Your task to perform on an android device: Do I have any events this weekend? Image 0: 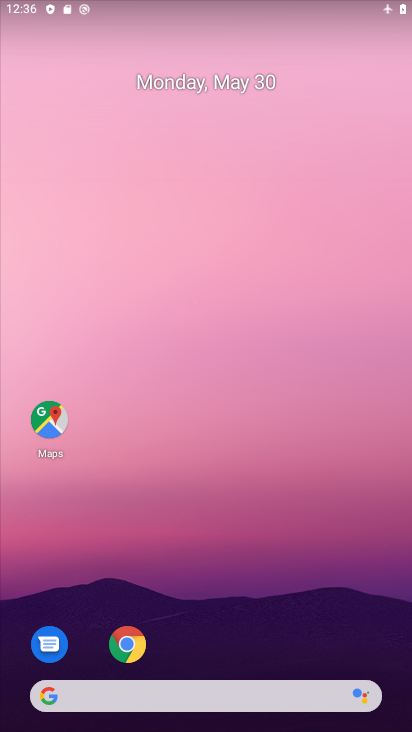
Step 0: drag from (315, 312) to (288, 106)
Your task to perform on an android device: Do I have any events this weekend? Image 1: 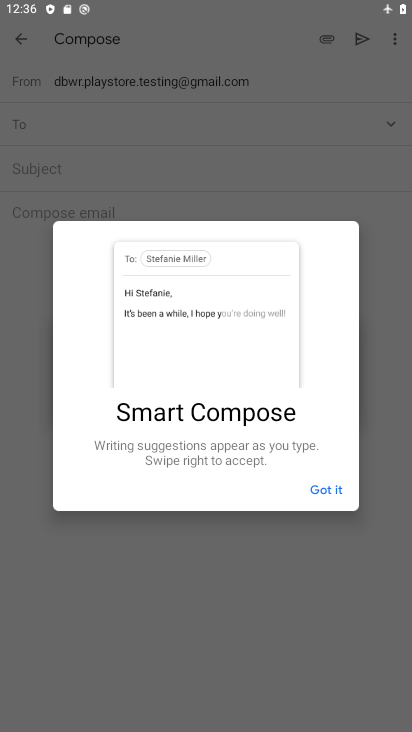
Step 1: press home button
Your task to perform on an android device: Do I have any events this weekend? Image 2: 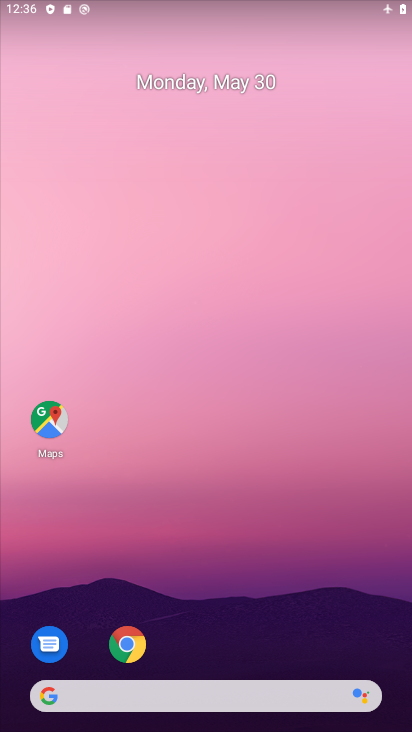
Step 2: drag from (310, 617) to (310, 141)
Your task to perform on an android device: Do I have any events this weekend? Image 3: 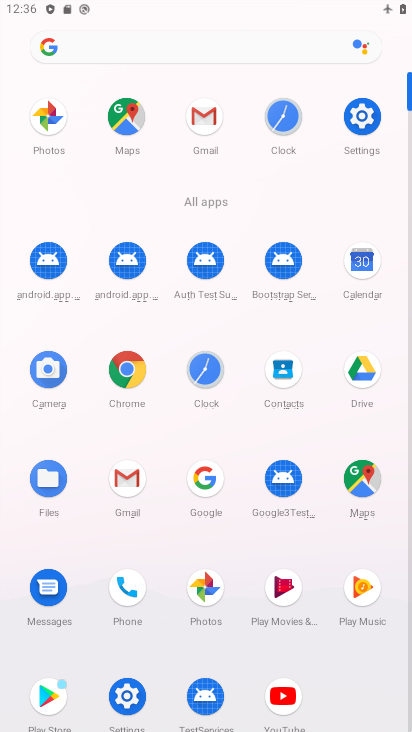
Step 3: click (361, 272)
Your task to perform on an android device: Do I have any events this weekend? Image 4: 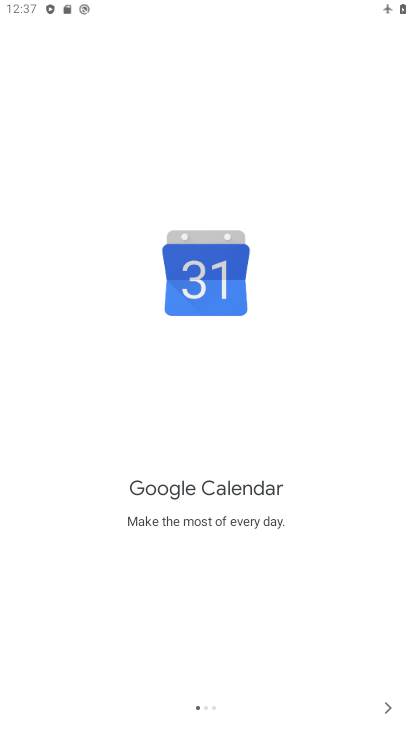
Step 4: click (382, 708)
Your task to perform on an android device: Do I have any events this weekend? Image 5: 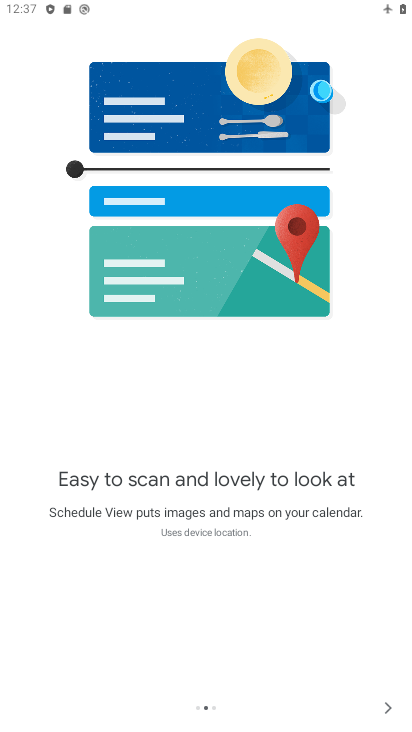
Step 5: click (383, 707)
Your task to perform on an android device: Do I have any events this weekend? Image 6: 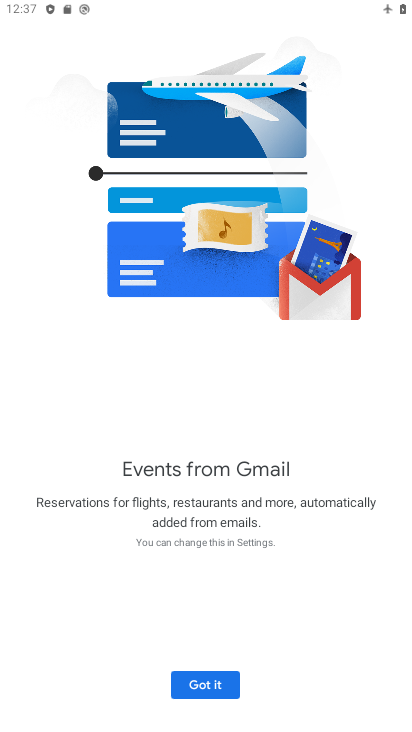
Step 6: click (185, 682)
Your task to perform on an android device: Do I have any events this weekend? Image 7: 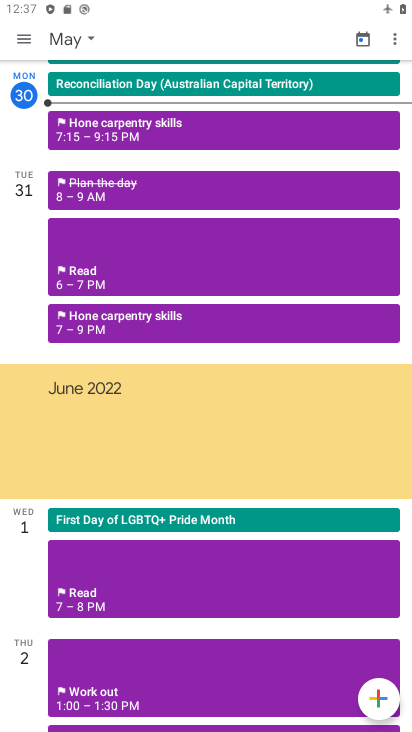
Step 7: task complete